Your task to perform on an android device: toggle show notifications on the lock screen Image 0: 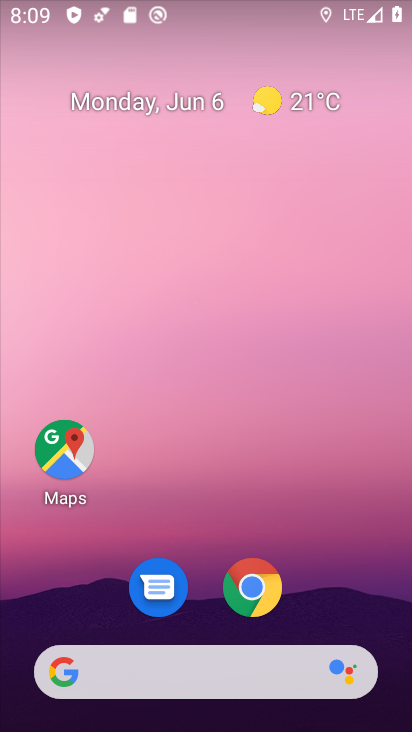
Step 0: drag from (298, 207) to (274, 112)
Your task to perform on an android device: toggle show notifications on the lock screen Image 1: 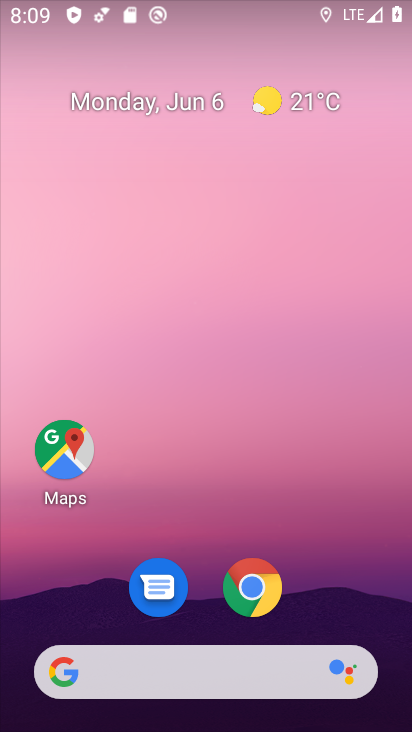
Step 1: drag from (334, 506) to (290, 140)
Your task to perform on an android device: toggle show notifications on the lock screen Image 2: 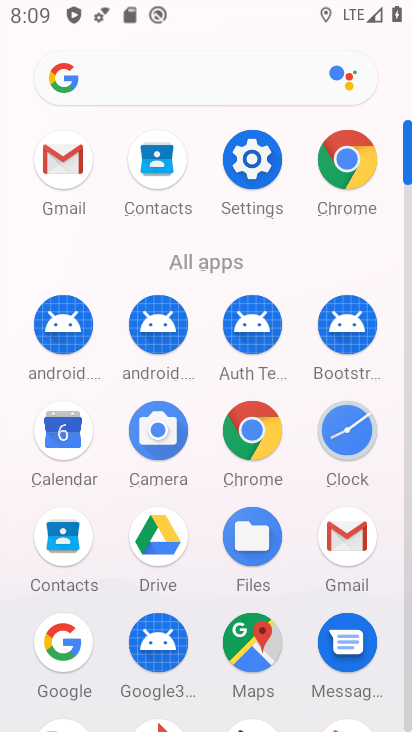
Step 2: click (243, 166)
Your task to perform on an android device: toggle show notifications on the lock screen Image 3: 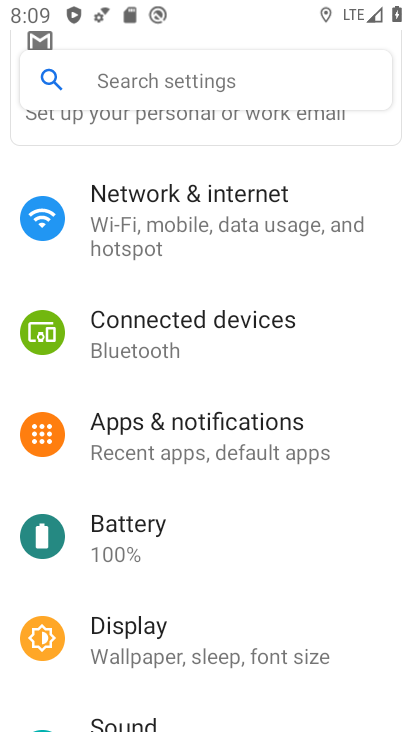
Step 3: click (219, 429)
Your task to perform on an android device: toggle show notifications on the lock screen Image 4: 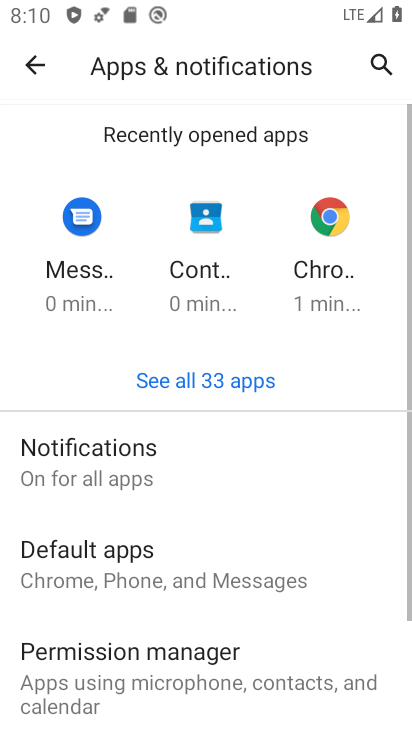
Step 4: click (90, 443)
Your task to perform on an android device: toggle show notifications on the lock screen Image 5: 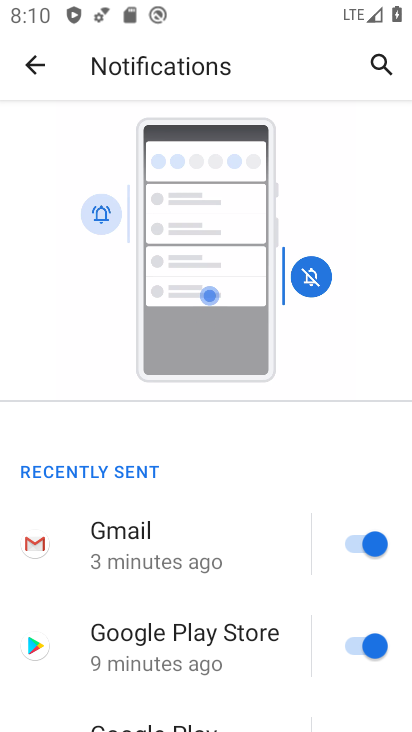
Step 5: drag from (239, 487) to (307, 11)
Your task to perform on an android device: toggle show notifications on the lock screen Image 6: 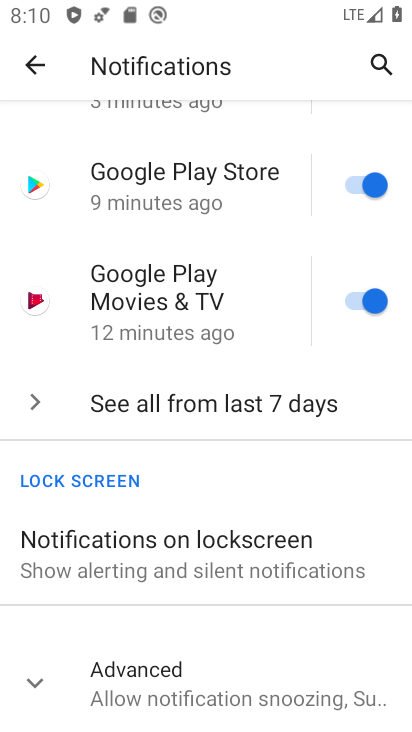
Step 6: click (235, 528)
Your task to perform on an android device: toggle show notifications on the lock screen Image 7: 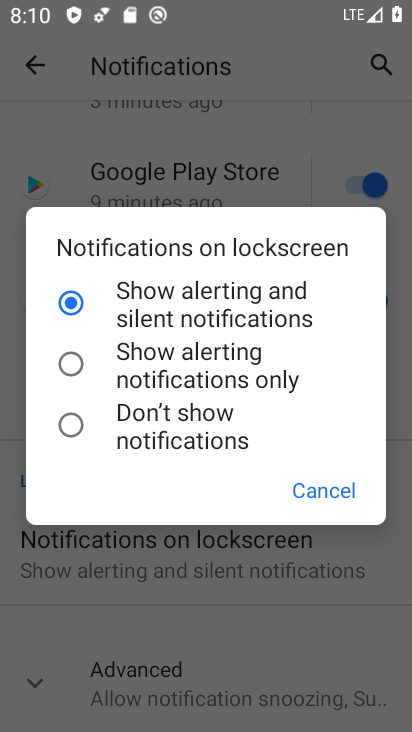
Step 7: click (223, 362)
Your task to perform on an android device: toggle show notifications on the lock screen Image 8: 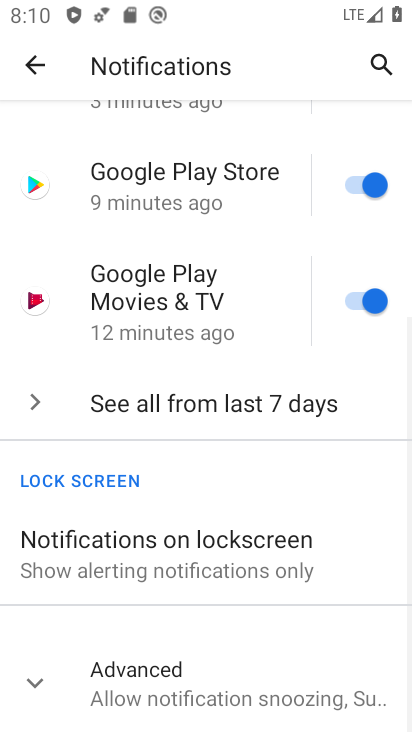
Step 8: task complete